Your task to perform on an android device: Go to network settings Image 0: 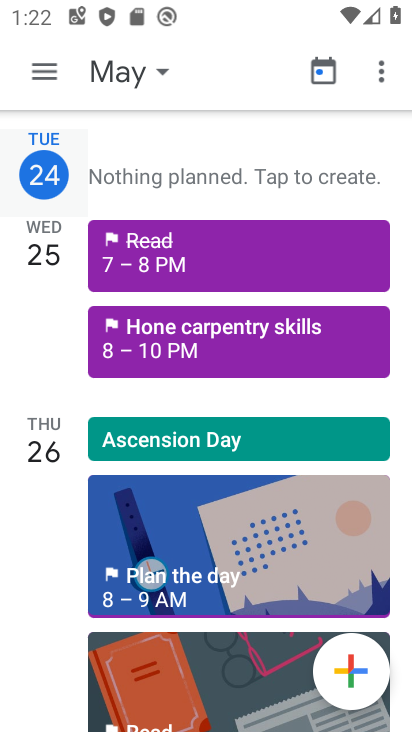
Step 0: press home button
Your task to perform on an android device: Go to network settings Image 1: 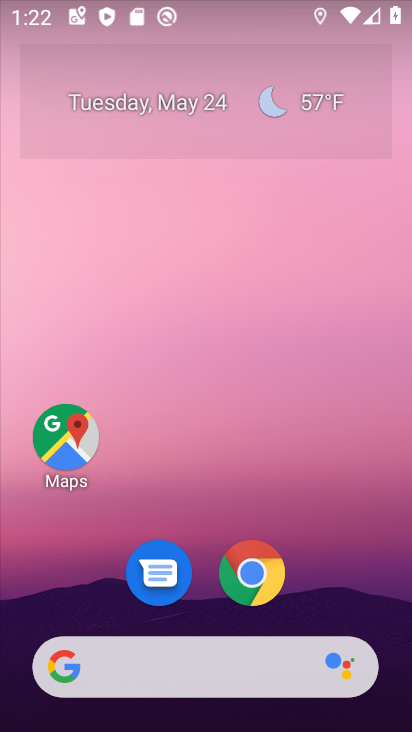
Step 1: drag from (345, 570) to (333, 206)
Your task to perform on an android device: Go to network settings Image 2: 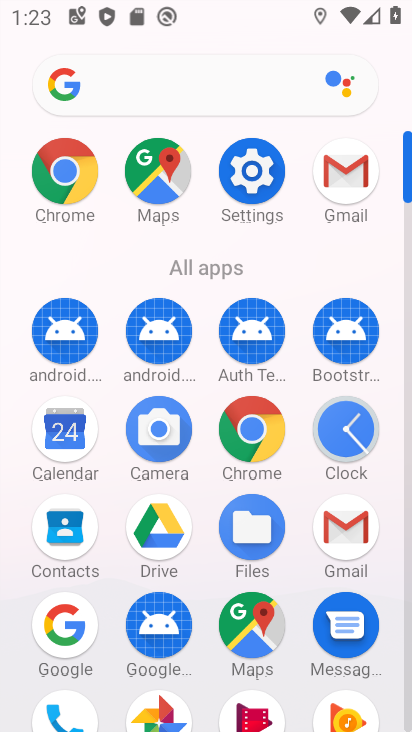
Step 2: click (254, 153)
Your task to perform on an android device: Go to network settings Image 3: 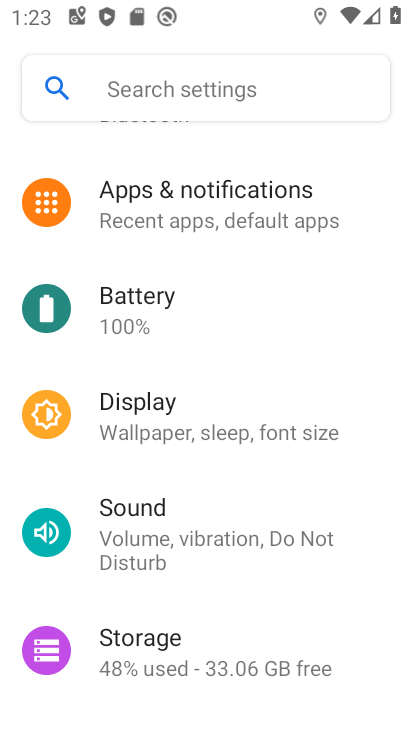
Step 3: drag from (246, 188) to (246, 478)
Your task to perform on an android device: Go to network settings Image 4: 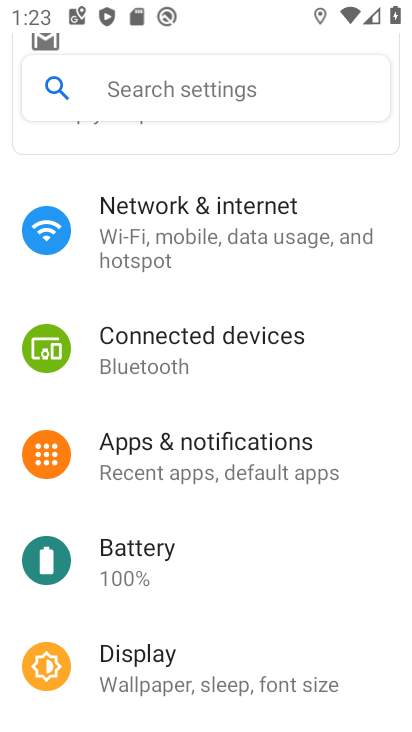
Step 4: click (230, 230)
Your task to perform on an android device: Go to network settings Image 5: 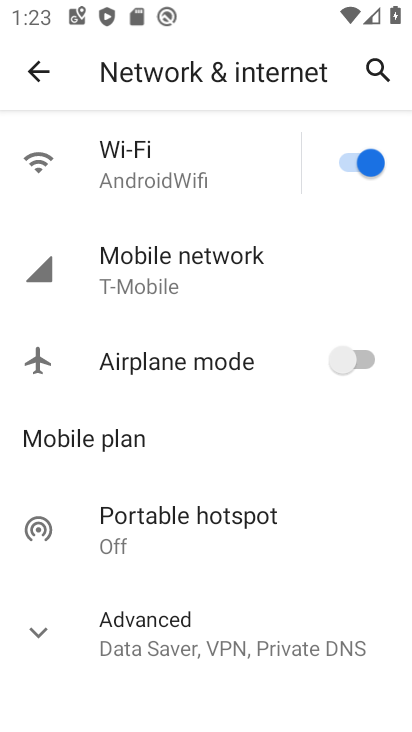
Step 5: click (229, 249)
Your task to perform on an android device: Go to network settings Image 6: 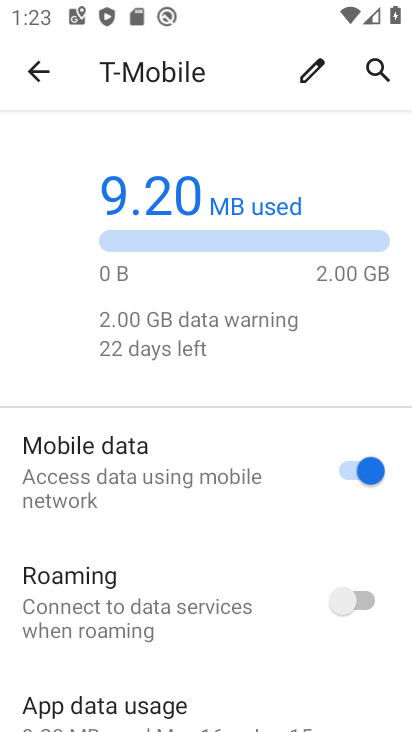
Step 6: task complete